Your task to perform on an android device: open app "Pandora - Music & Podcasts" Image 0: 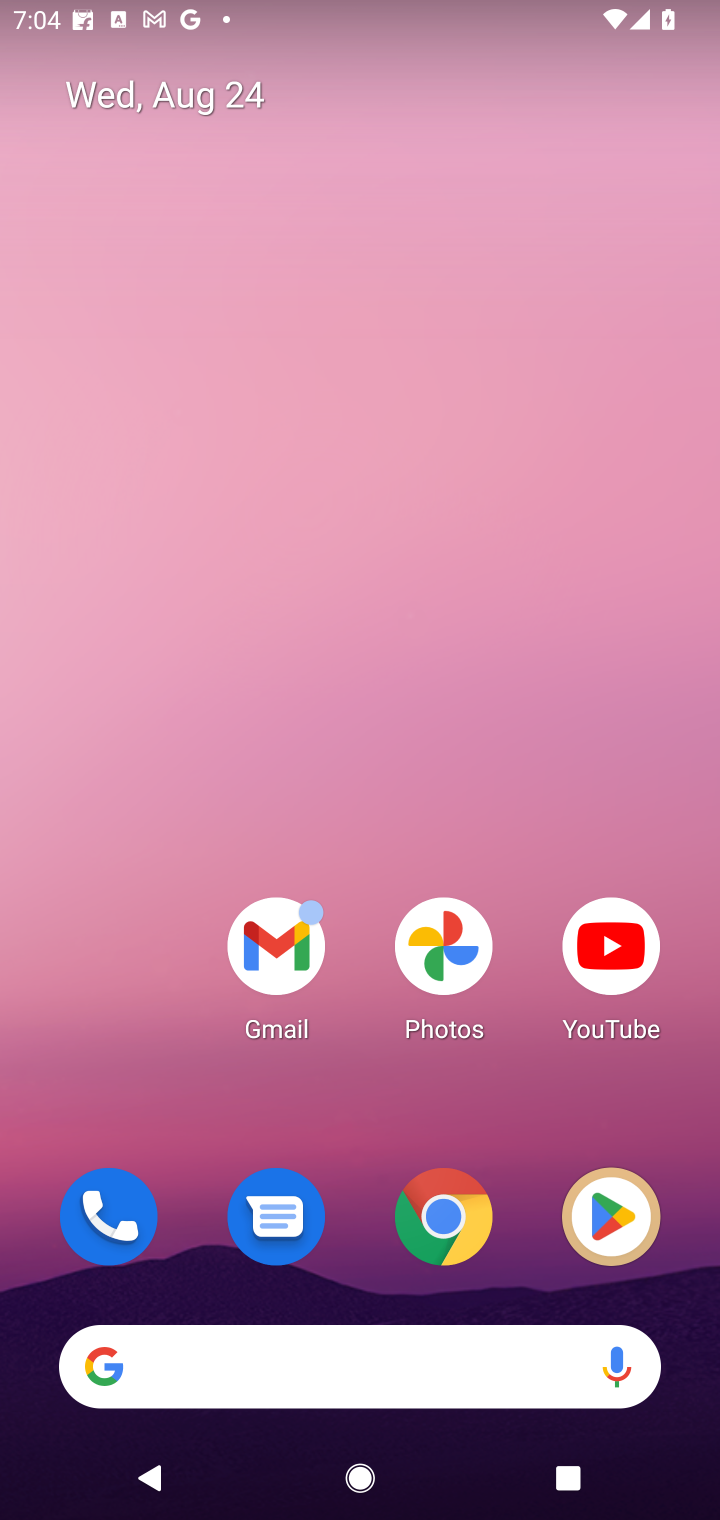
Step 0: click (623, 1198)
Your task to perform on an android device: open app "Pandora - Music & Podcasts" Image 1: 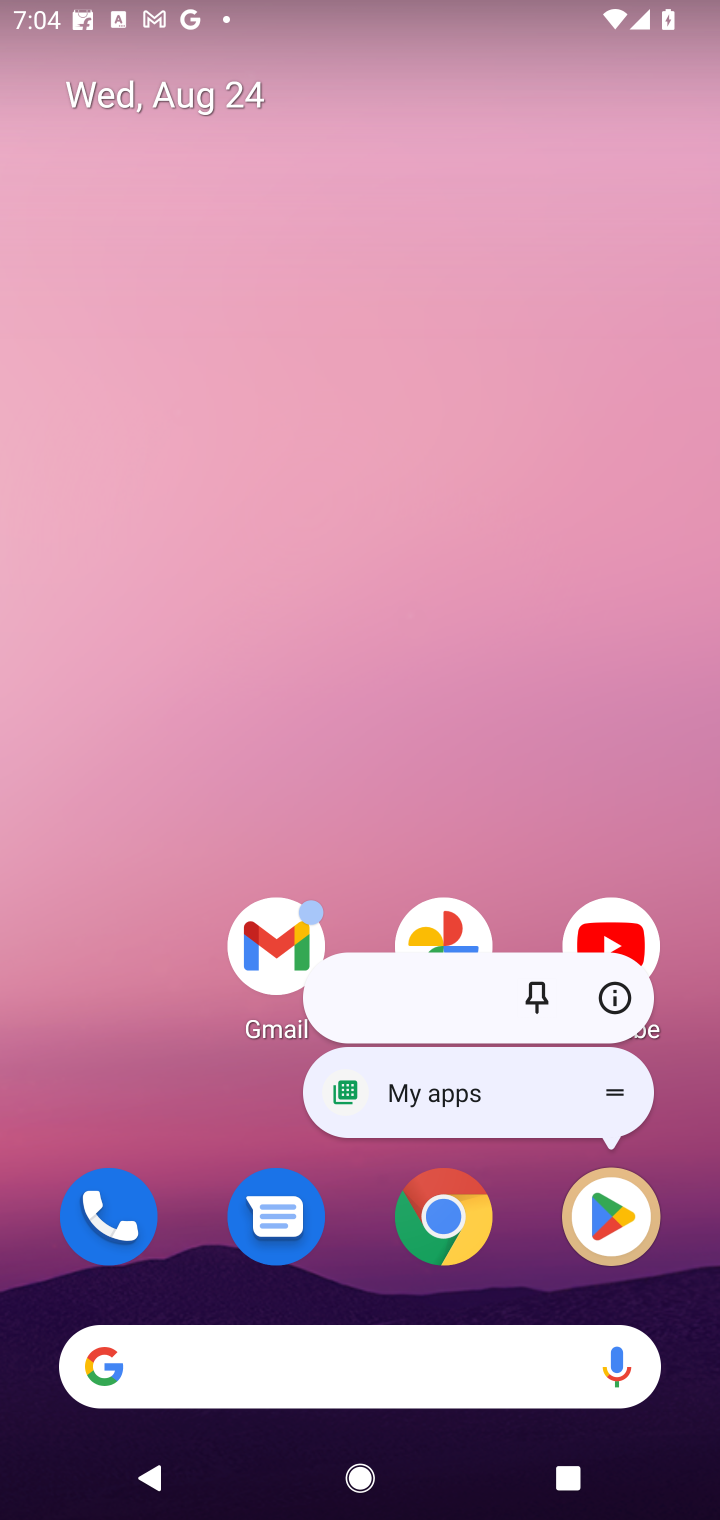
Step 1: click (620, 1212)
Your task to perform on an android device: open app "Pandora - Music & Podcasts" Image 2: 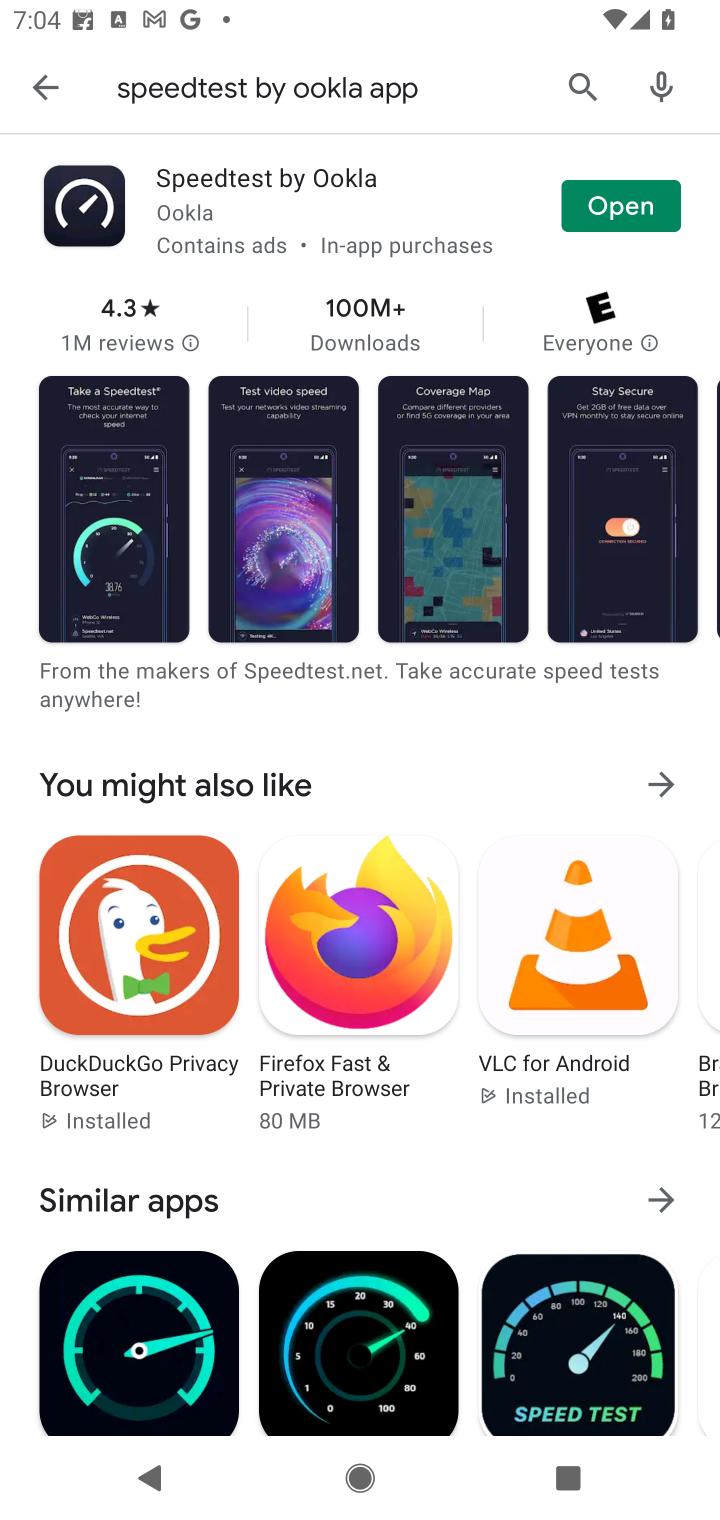
Step 2: click (574, 78)
Your task to perform on an android device: open app "Pandora - Music & Podcasts" Image 3: 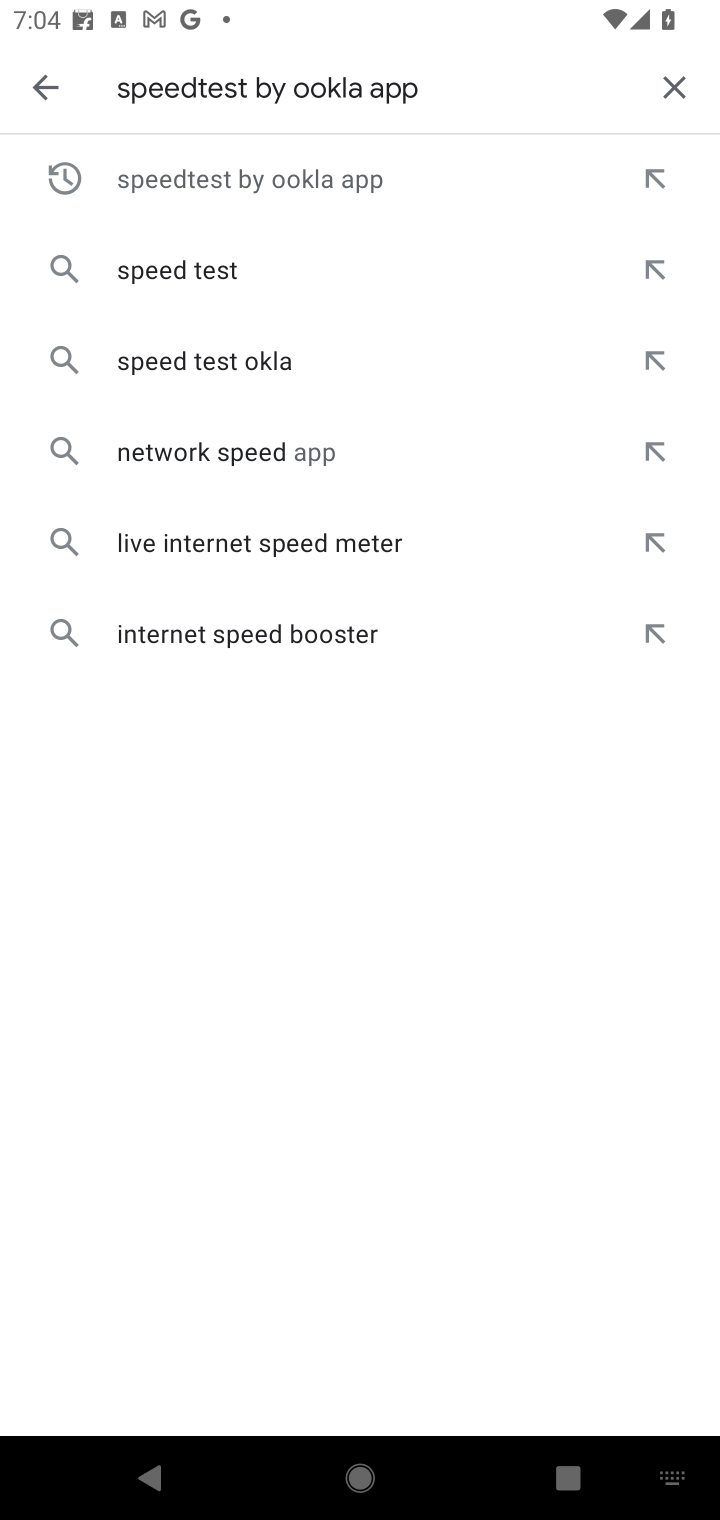
Step 3: click (654, 71)
Your task to perform on an android device: open app "Pandora - Music & Podcasts" Image 4: 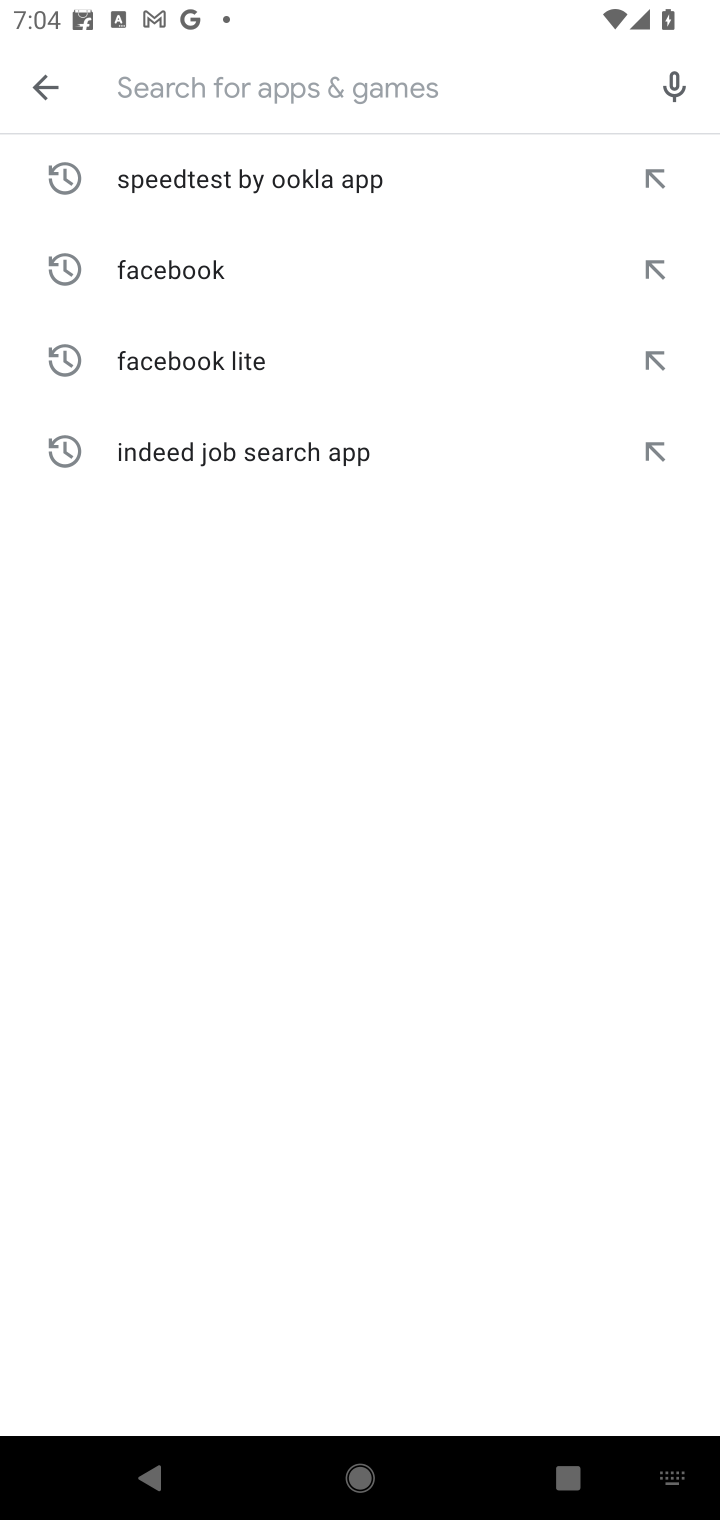
Step 4: type "Pandora - Music & Podcasts"
Your task to perform on an android device: open app "Pandora - Music & Podcasts" Image 5: 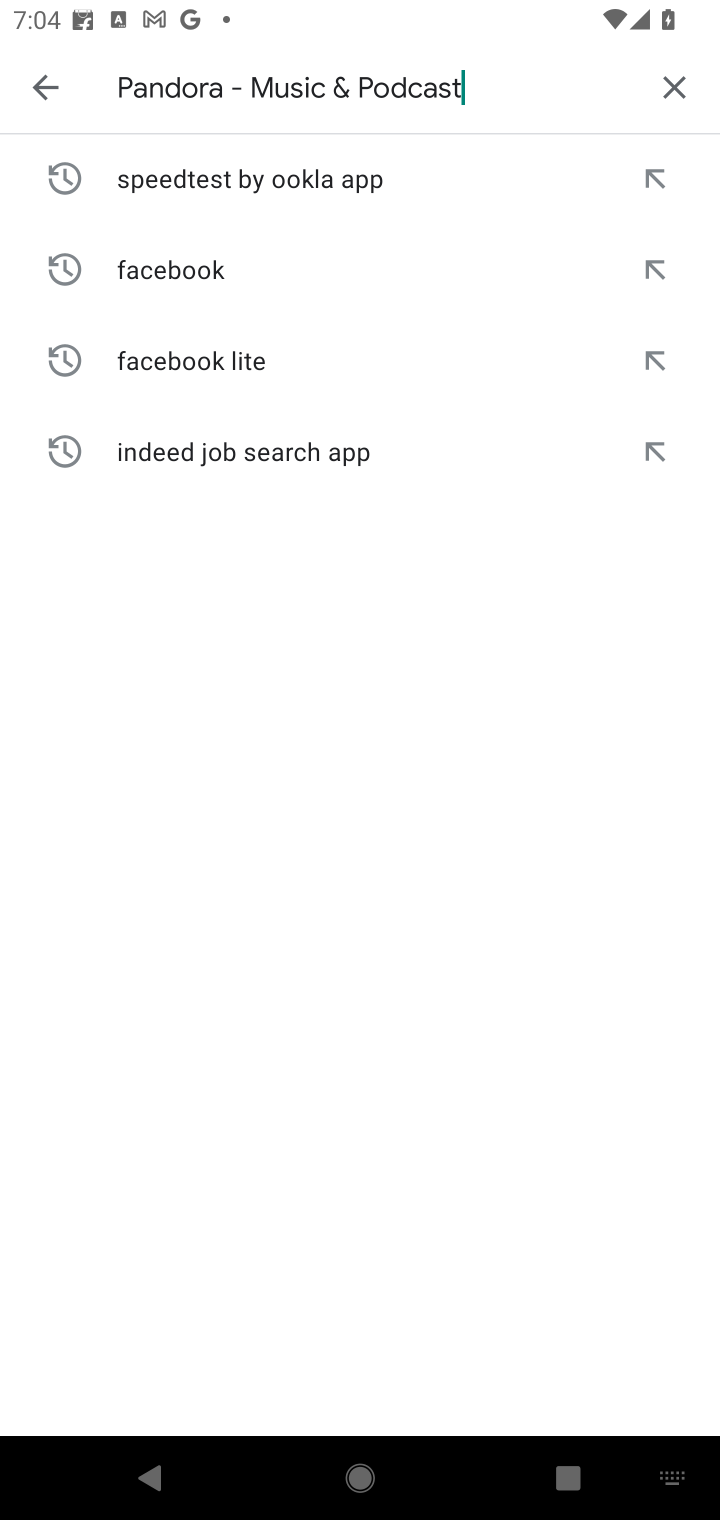
Step 5: type ""
Your task to perform on an android device: open app "Pandora - Music & Podcasts" Image 6: 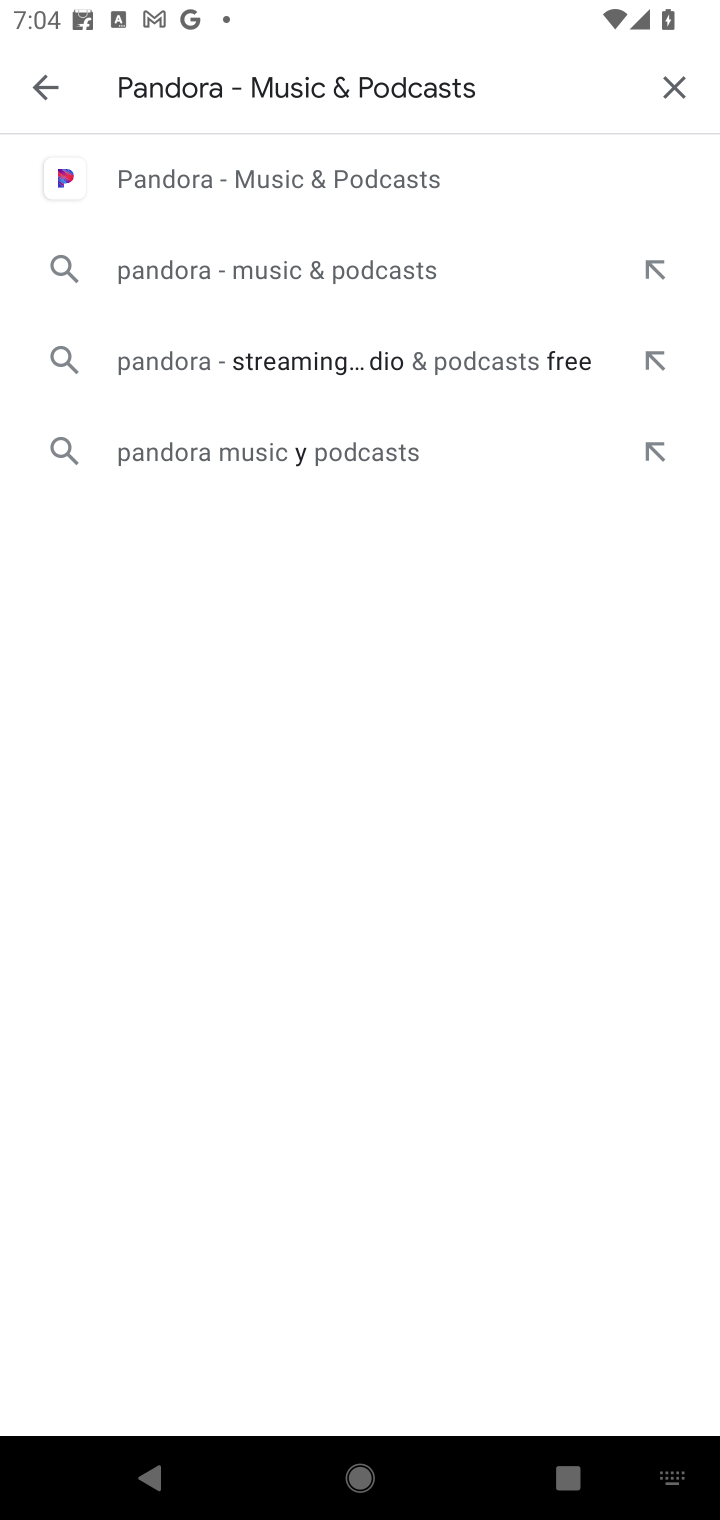
Step 6: click (452, 164)
Your task to perform on an android device: open app "Pandora - Music & Podcasts" Image 7: 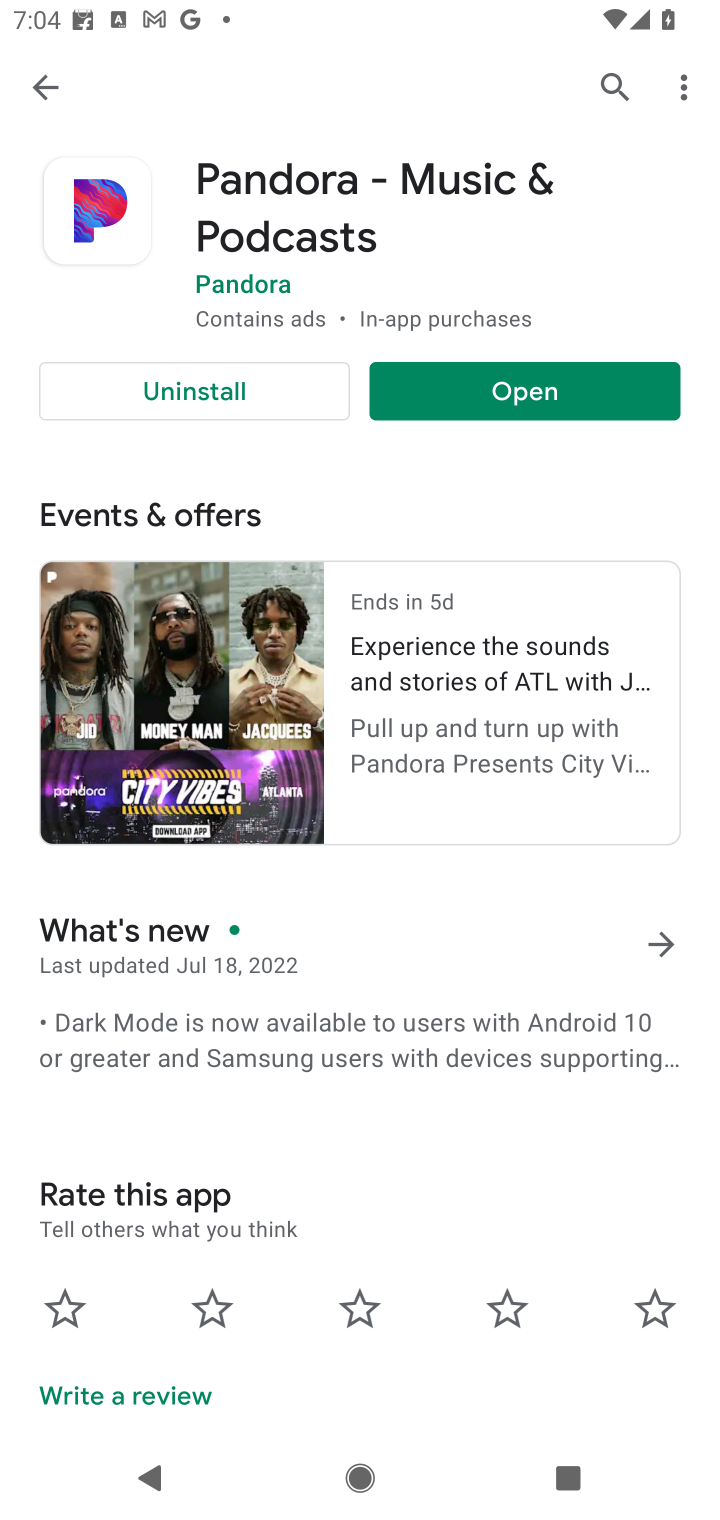
Step 7: click (492, 380)
Your task to perform on an android device: open app "Pandora - Music & Podcasts" Image 8: 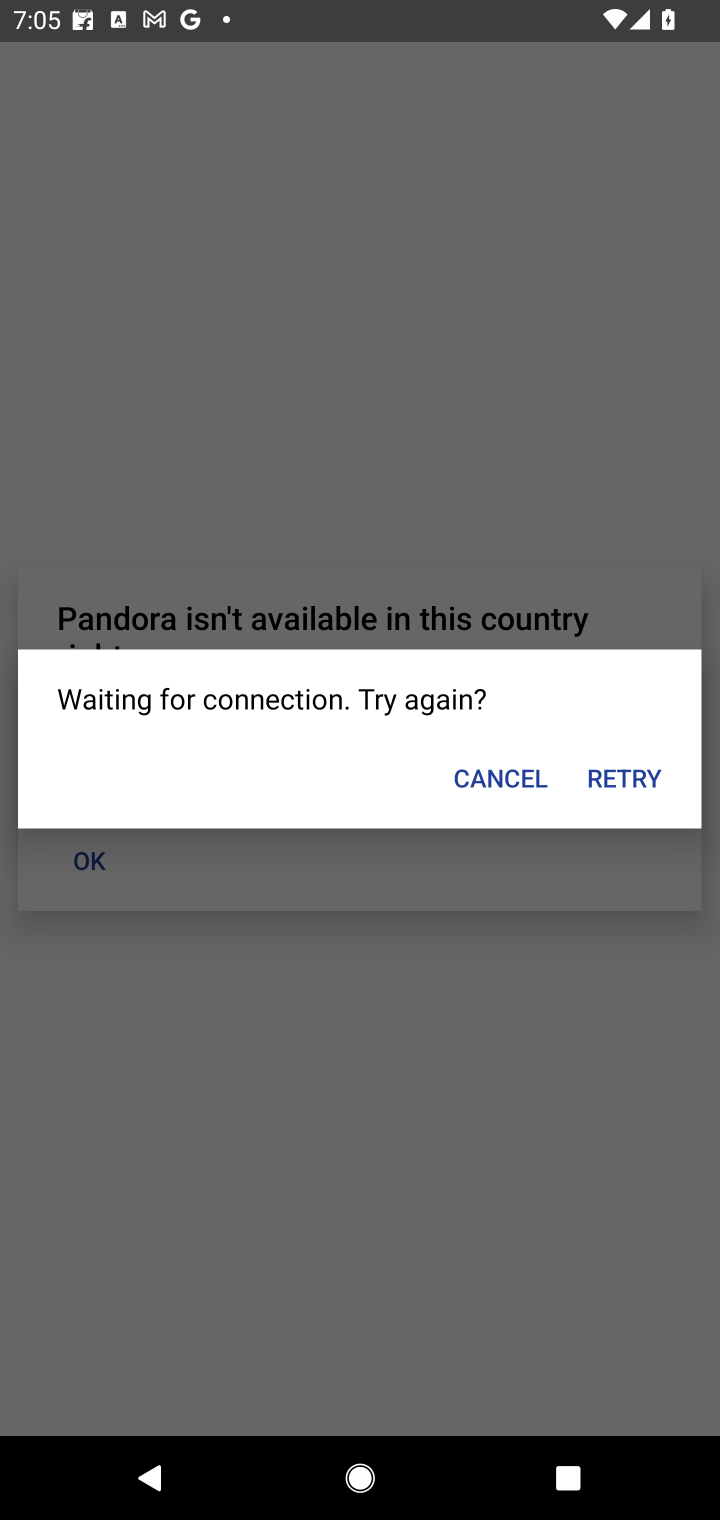
Step 8: task complete